Your task to perform on an android device: Go to sound settings Image 0: 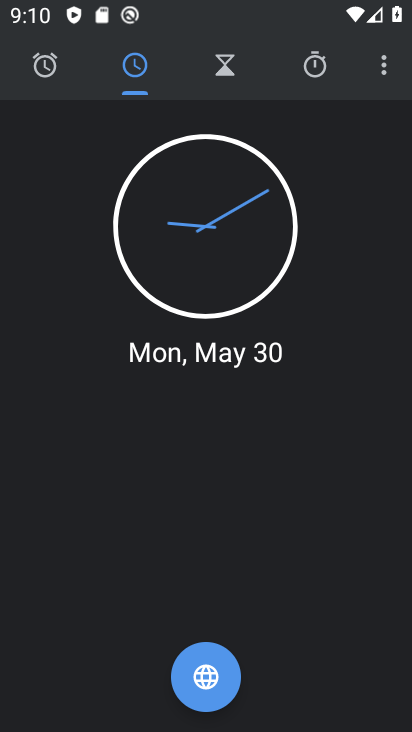
Step 0: press home button
Your task to perform on an android device: Go to sound settings Image 1: 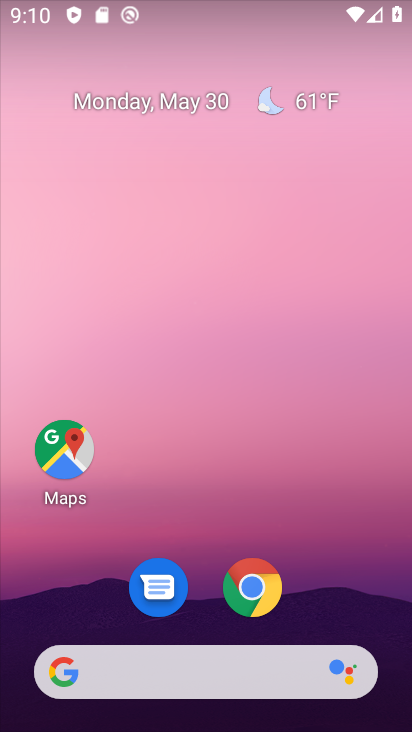
Step 1: drag from (224, 659) to (395, 598)
Your task to perform on an android device: Go to sound settings Image 2: 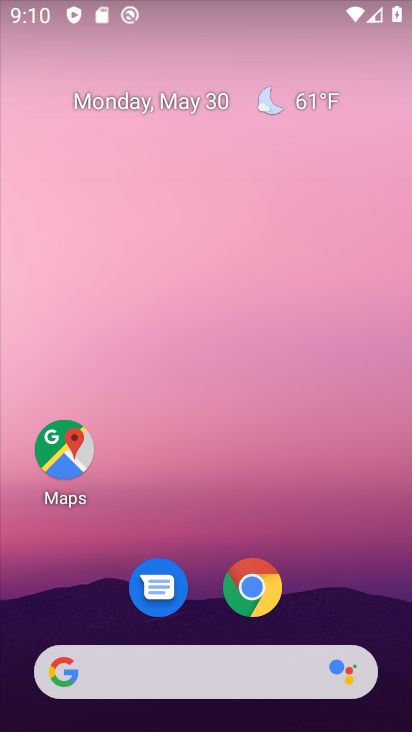
Step 2: drag from (219, 667) to (205, 23)
Your task to perform on an android device: Go to sound settings Image 3: 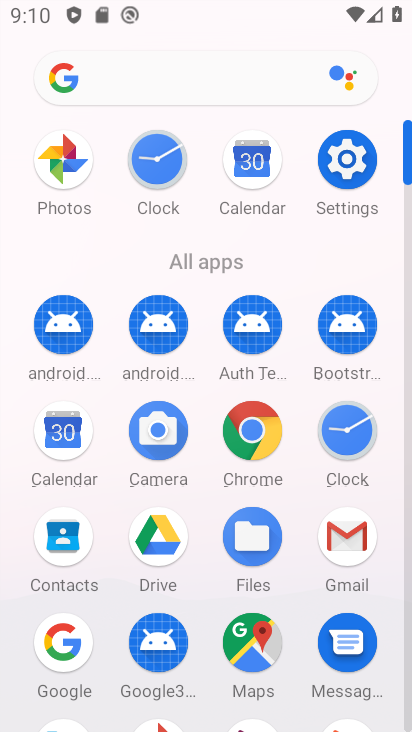
Step 3: click (356, 184)
Your task to perform on an android device: Go to sound settings Image 4: 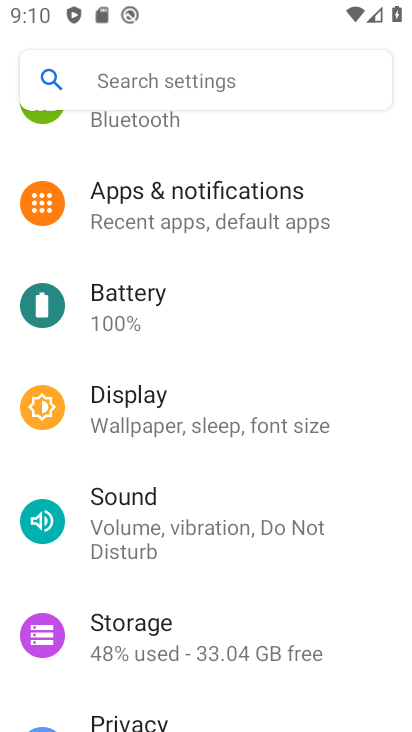
Step 4: click (185, 499)
Your task to perform on an android device: Go to sound settings Image 5: 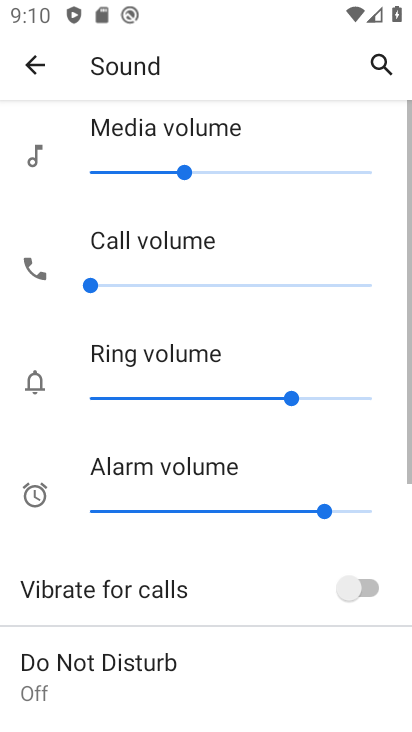
Step 5: task complete